Your task to perform on an android device: What is the news today? Image 0: 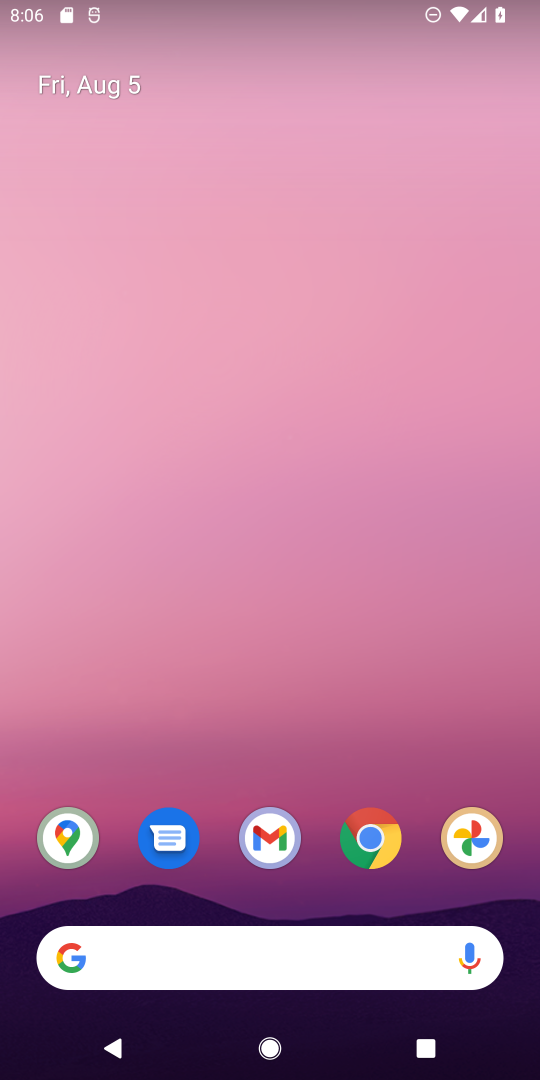
Step 0: drag from (250, 898) to (314, 311)
Your task to perform on an android device: What is the news today? Image 1: 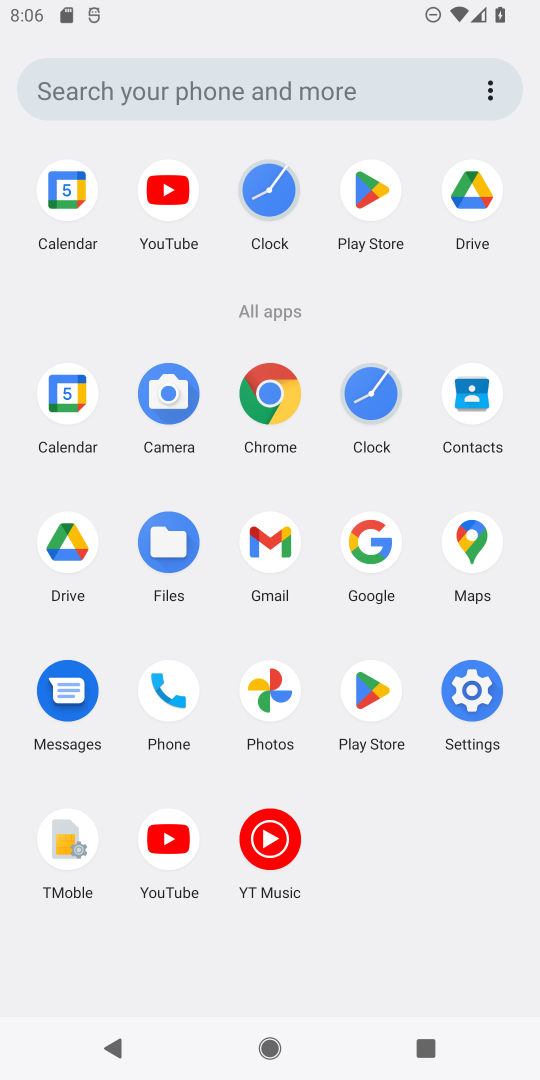
Step 1: click (357, 552)
Your task to perform on an android device: What is the news today? Image 2: 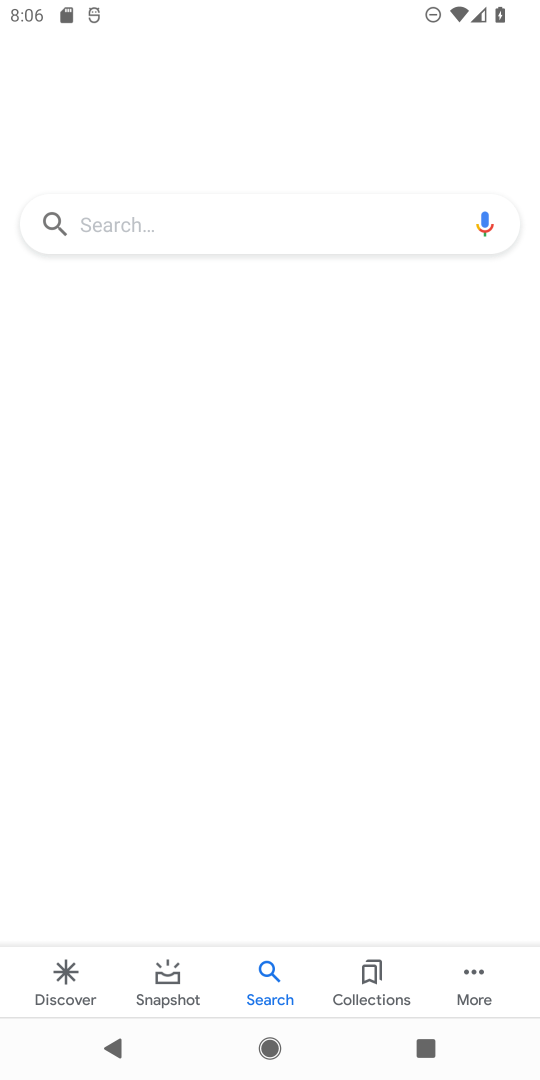
Step 2: click (256, 219)
Your task to perform on an android device: What is the news today? Image 3: 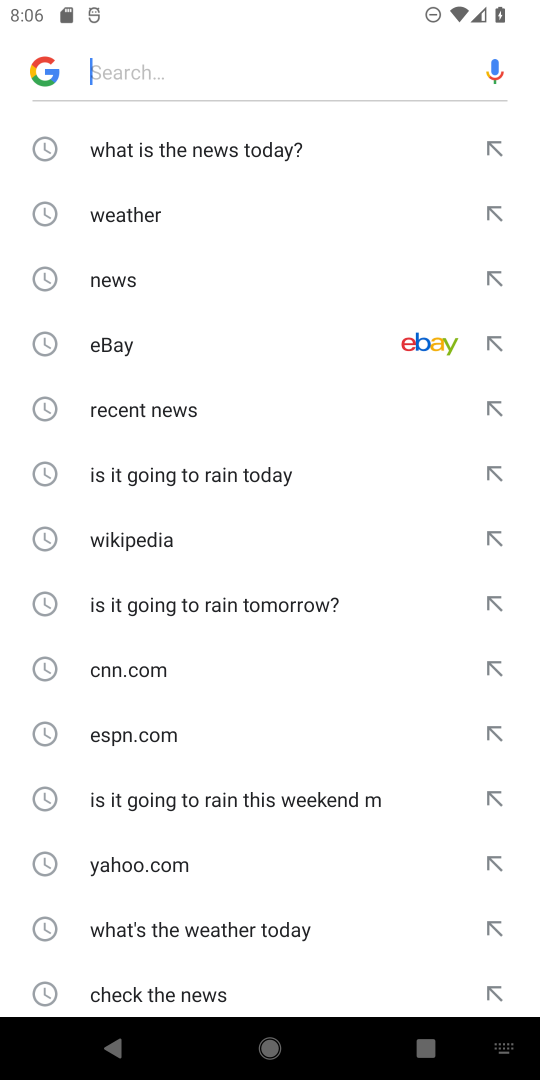
Step 3: click (150, 284)
Your task to perform on an android device: What is the news today? Image 4: 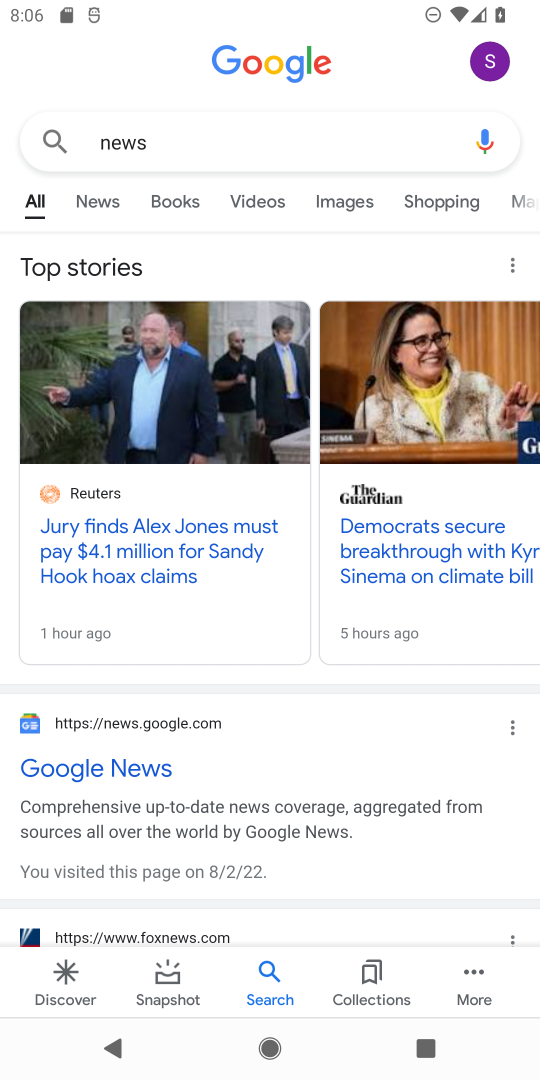
Step 4: click (97, 766)
Your task to perform on an android device: What is the news today? Image 5: 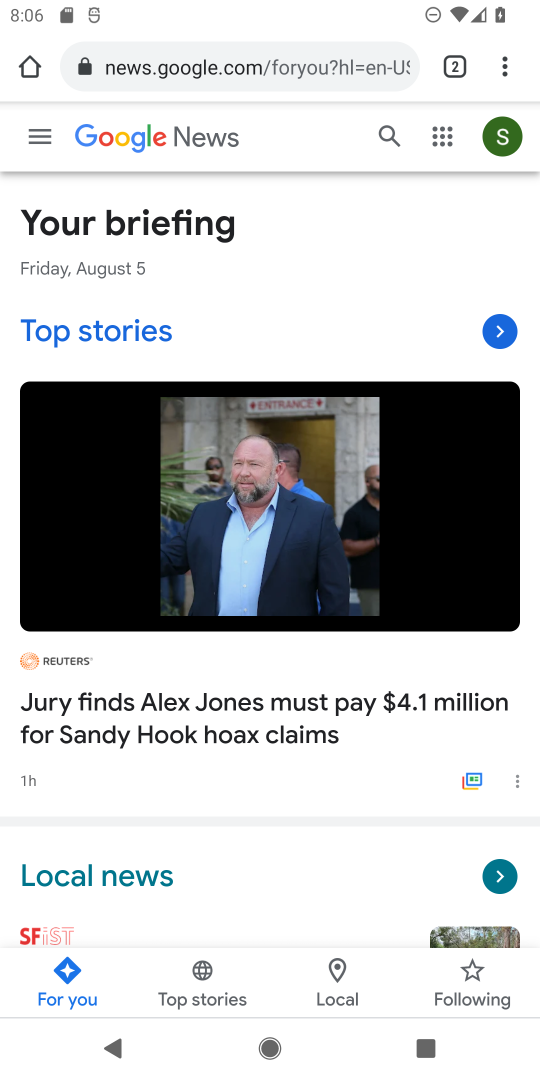
Step 5: task complete